Your task to perform on an android device: set an alarm Image 0: 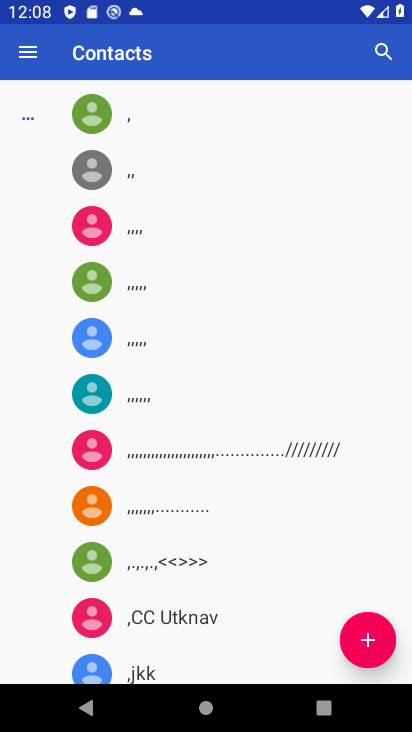
Step 0: press home button
Your task to perform on an android device: set an alarm Image 1: 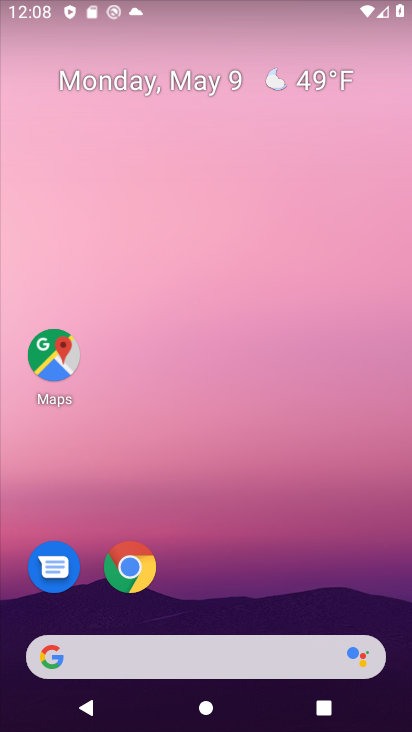
Step 1: drag from (223, 728) to (228, 141)
Your task to perform on an android device: set an alarm Image 2: 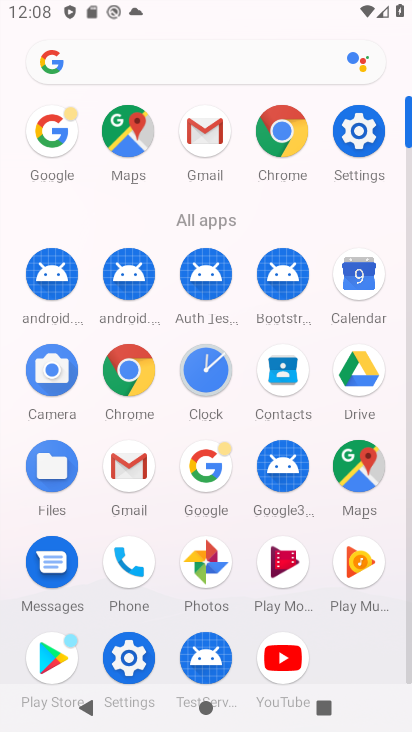
Step 2: click (205, 375)
Your task to perform on an android device: set an alarm Image 3: 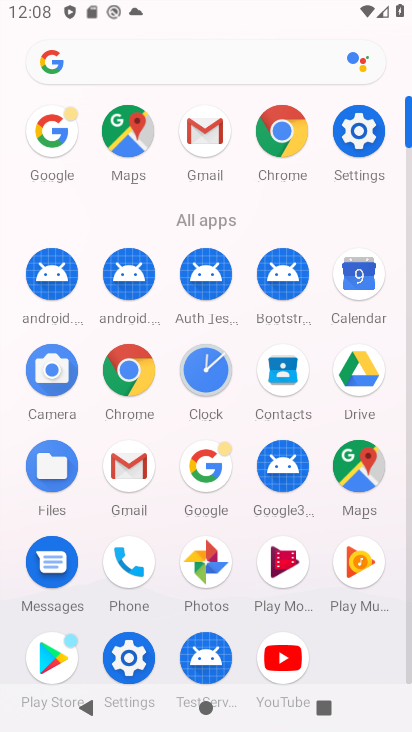
Step 3: click (205, 375)
Your task to perform on an android device: set an alarm Image 4: 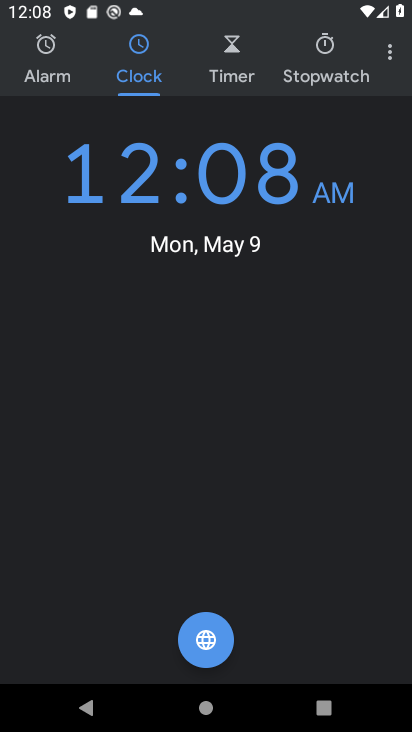
Step 4: click (41, 48)
Your task to perform on an android device: set an alarm Image 5: 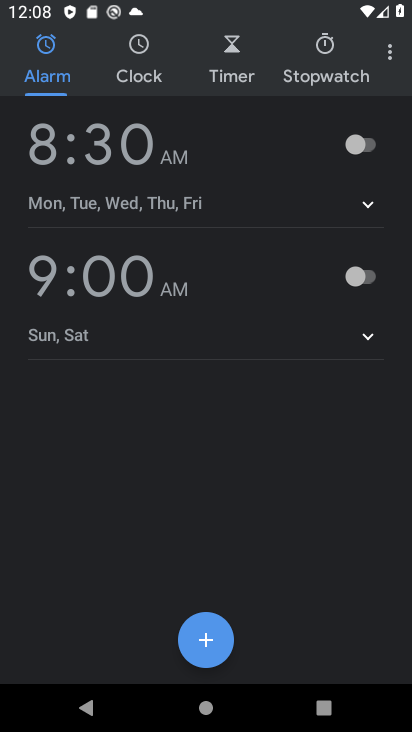
Step 5: click (208, 636)
Your task to perform on an android device: set an alarm Image 6: 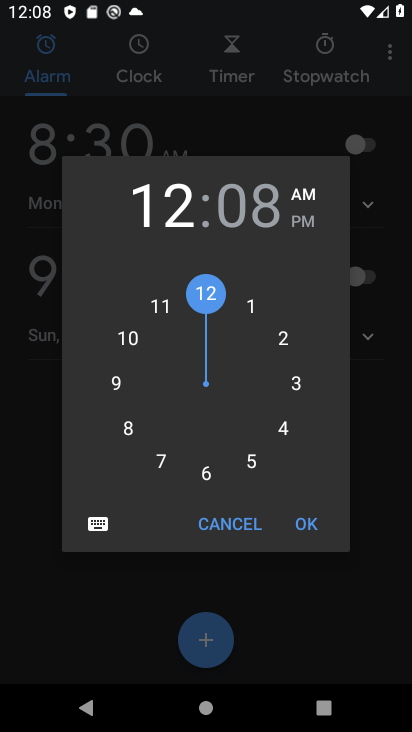
Step 6: click (253, 456)
Your task to perform on an android device: set an alarm Image 7: 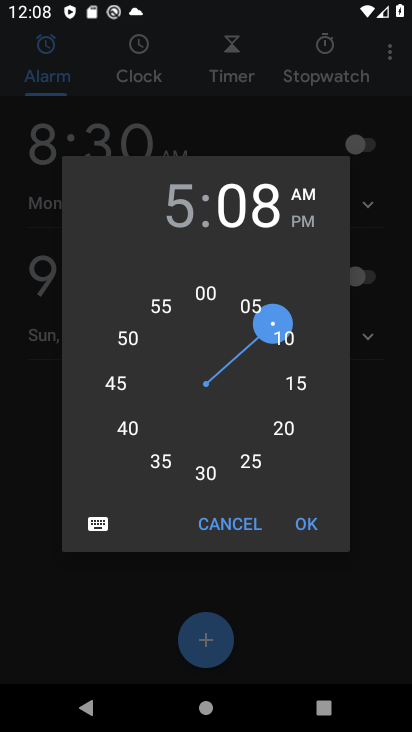
Step 7: click (306, 521)
Your task to perform on an android device: set an alarm Image 8: 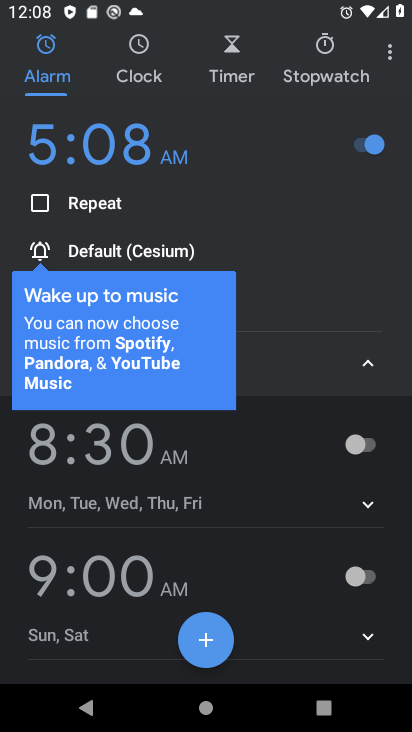
Step 8: task complete